Your task to perform on an android device: Open notification settings Image 0: 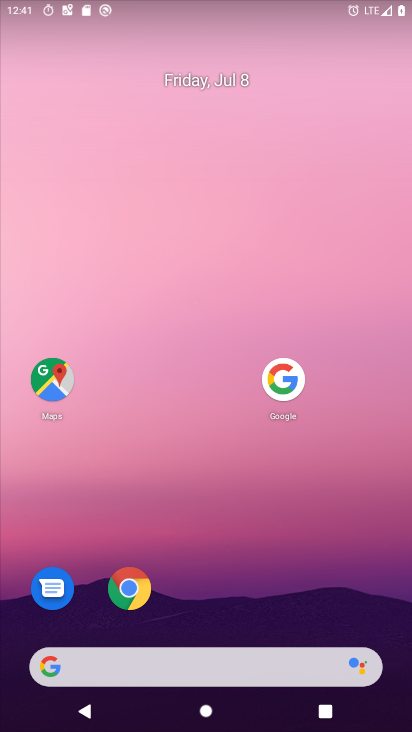
Step 0: drag from (185, 669) to (285, 12)
Your task to perform on an android device: Open notification settings Image 1: 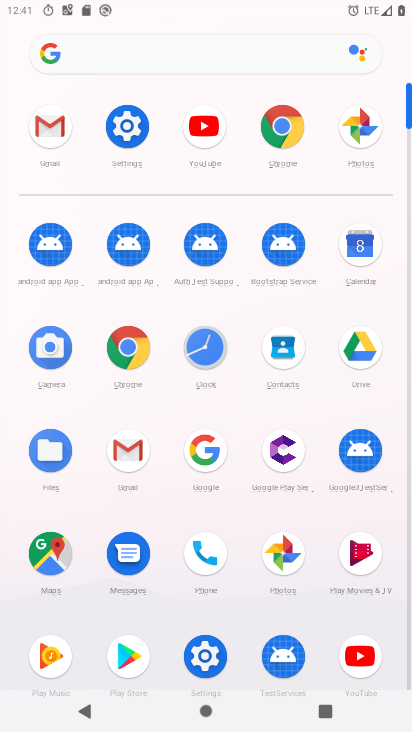
Step 1: click (128, 126)
Your task to perform on an android device: Open notification settings Image 2: 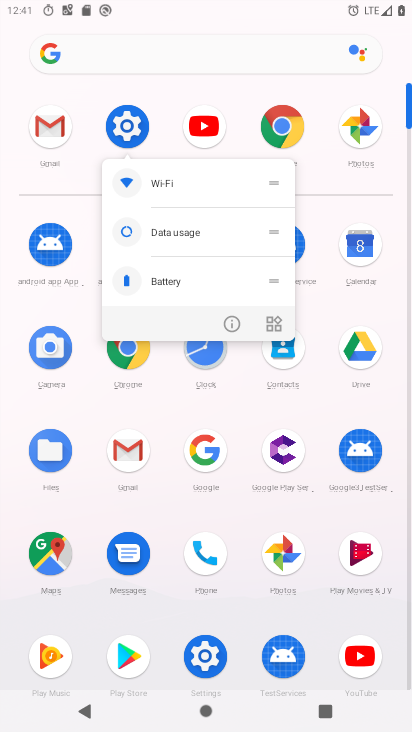
Step 2: click (125, 127)
Your task to perform on an android device: Open notification settings Image 3: 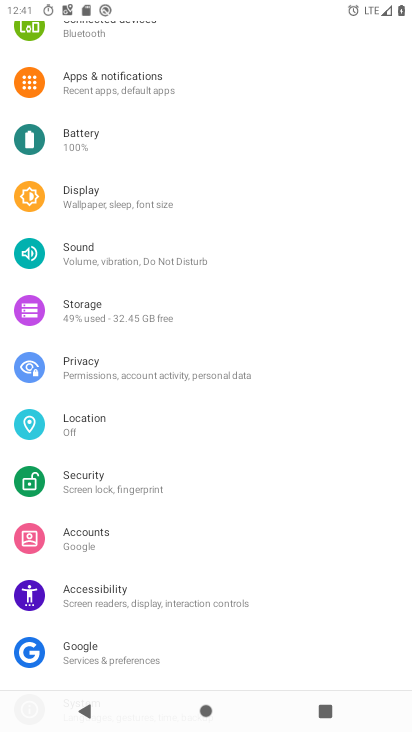
Step 3: click (140, 82)
Your task to perform on an android device: Open notification settings Image 4: 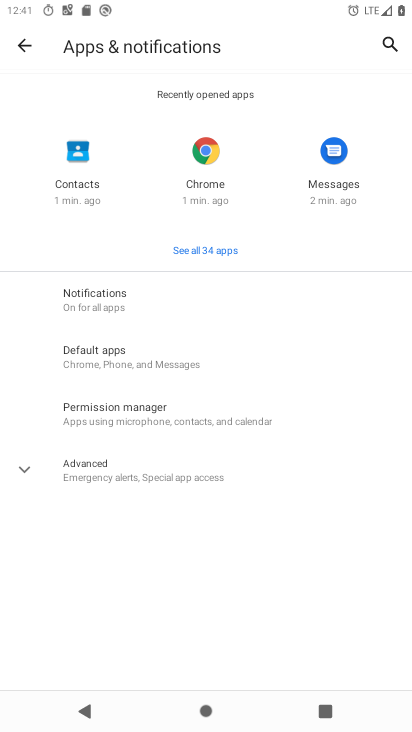
Step 4: click (105, 298)
Your task to perform on an android device: Open notification settings Image 5: 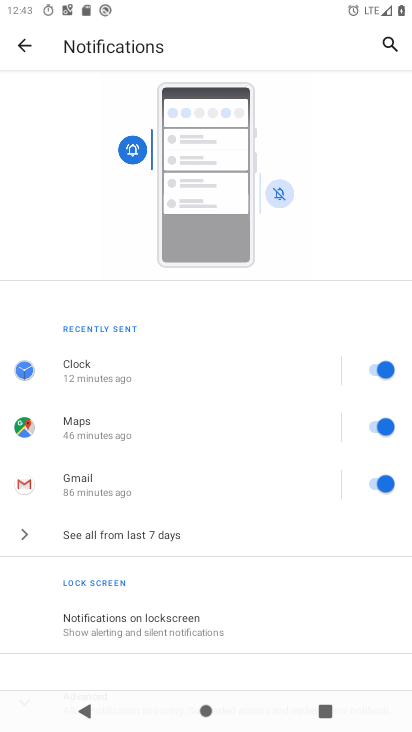
Step 5: task complete